Your task to perform on an android device: Add "macbook pro" to the cart on target, then select checkout. Image 0: 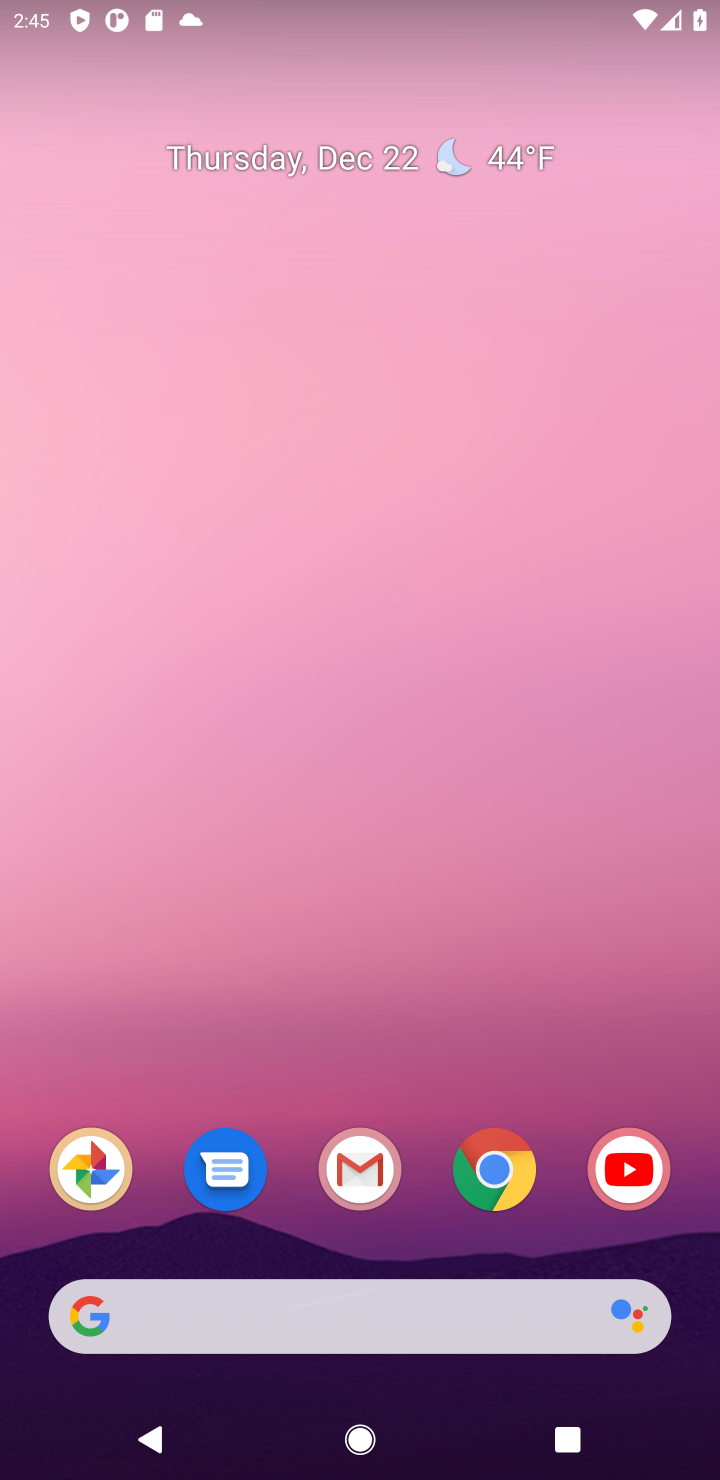
Step 0: click (487, 1172)
Your task to perform on an android device: Add "macbook pro" to the cart on target, then select checkout. Image 1: 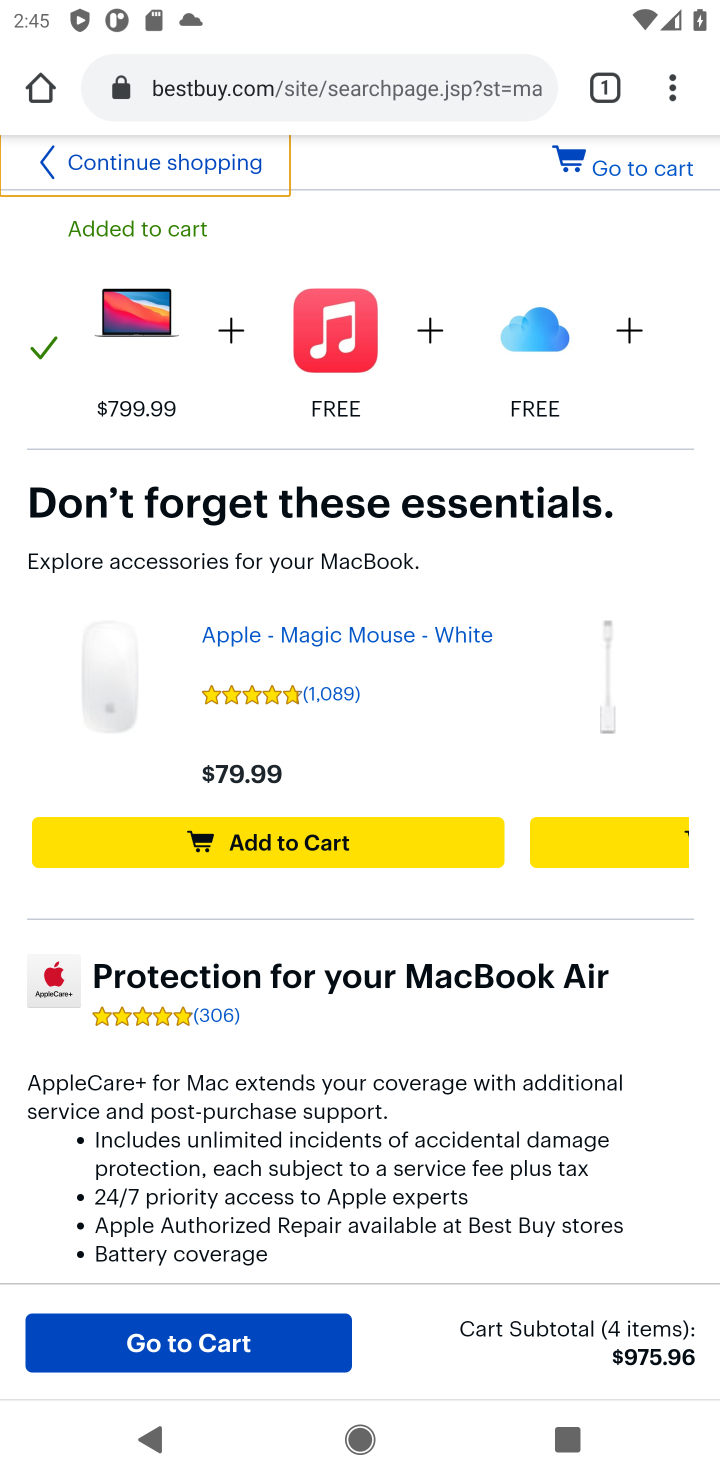
Step 1: click (258, 81)
Your task to perform on an android device: Add "macbook pro" to the cart on target, then select checkout. Image 2: 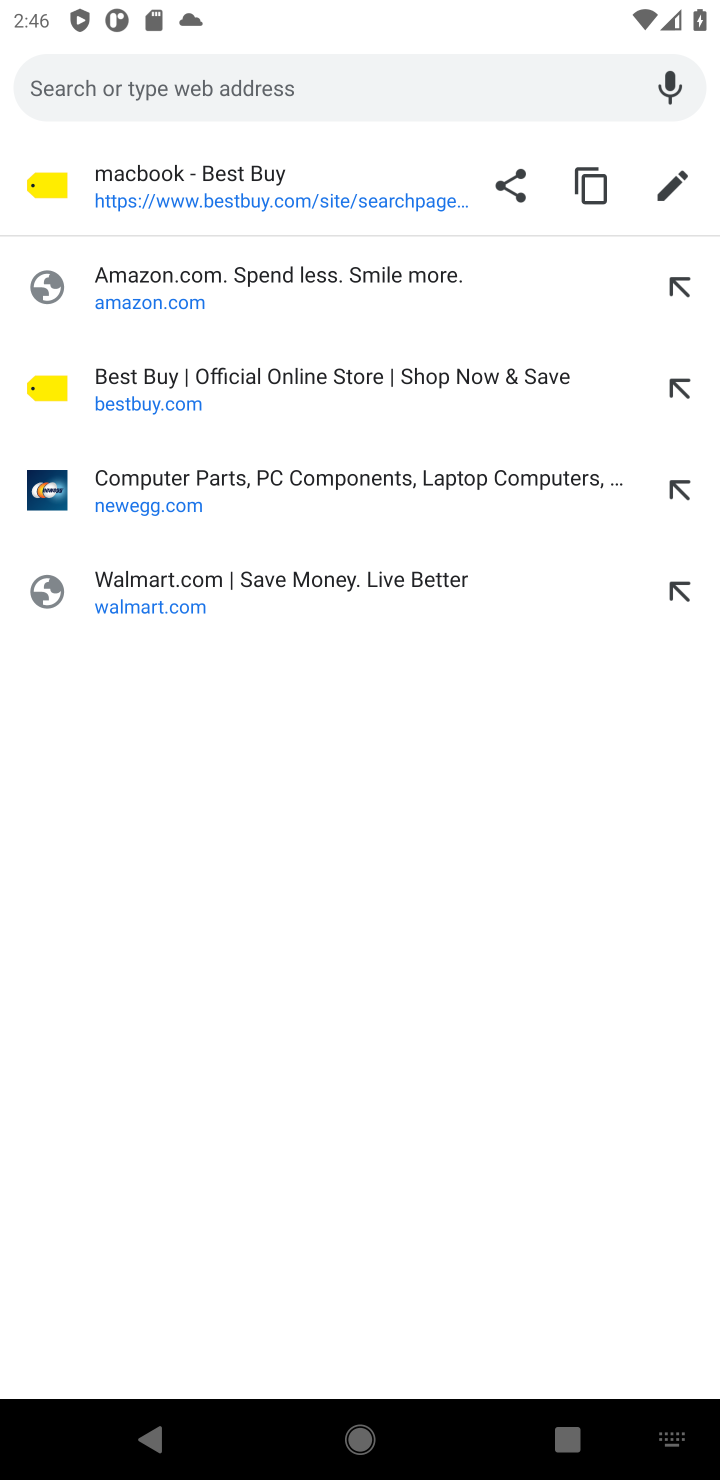
Step 2: type "target.com"
Your task to perform on an android device: Add "macbook pro" to the cart on target, then select checkout. Image 3: 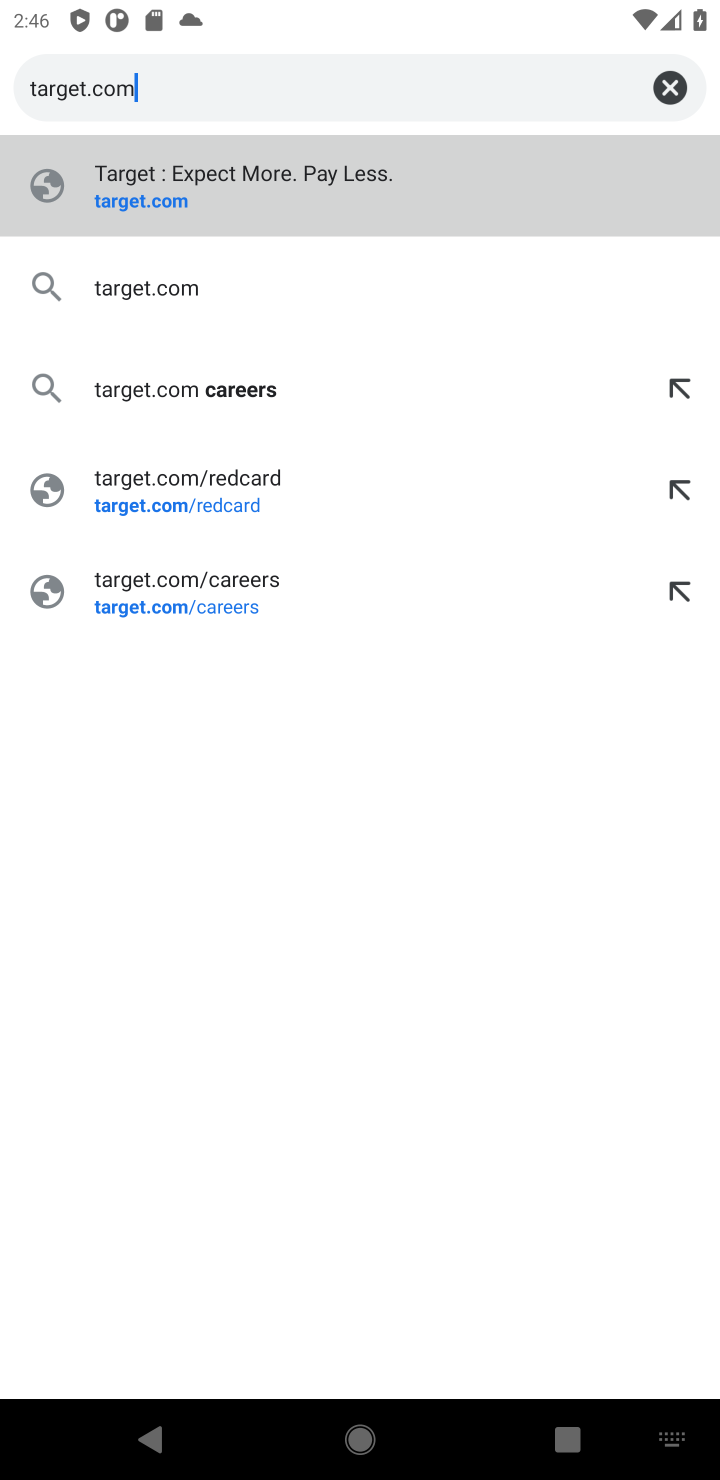
Step 3: click (137, 210)
Your task to perform on an android device: Add "macbook pro" to the cart on target, then select checkout. Image 4: 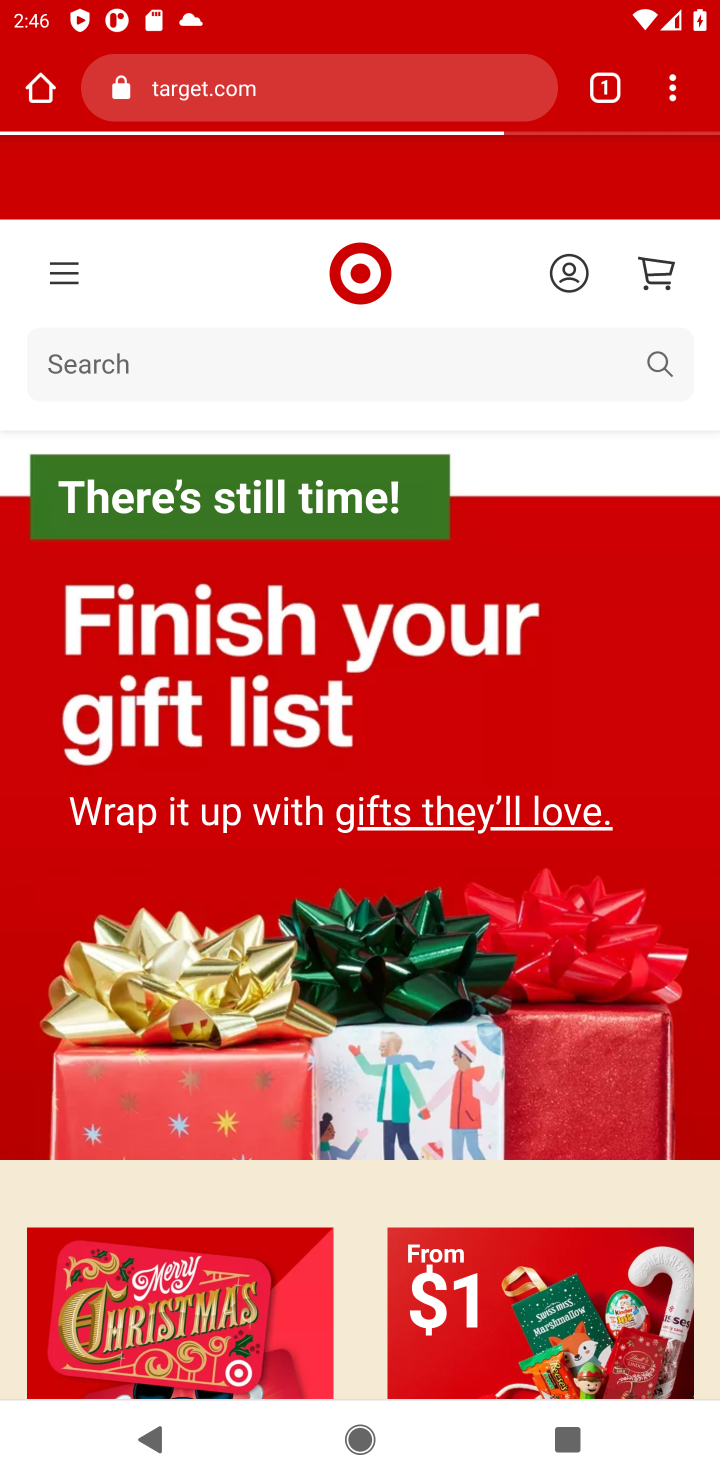
Step 4: click (69, 369)
Your task to perform on an android device: Add "macbook pro" to the cart on target, then select checkout. Image 5: 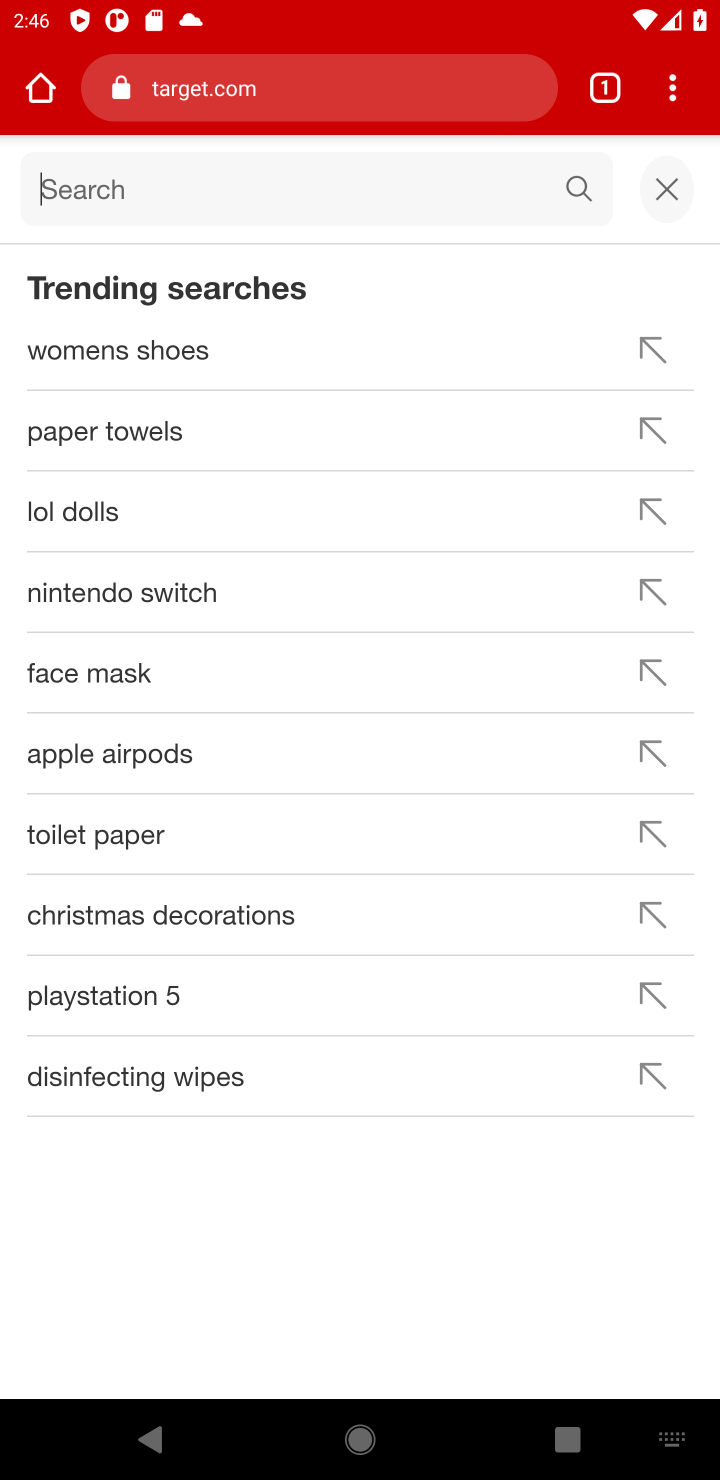
Step 5: type "macbook pro"
Your task to perform on an android device: Add "macbook pro" to the cart on target, then select checkout. Image 6: 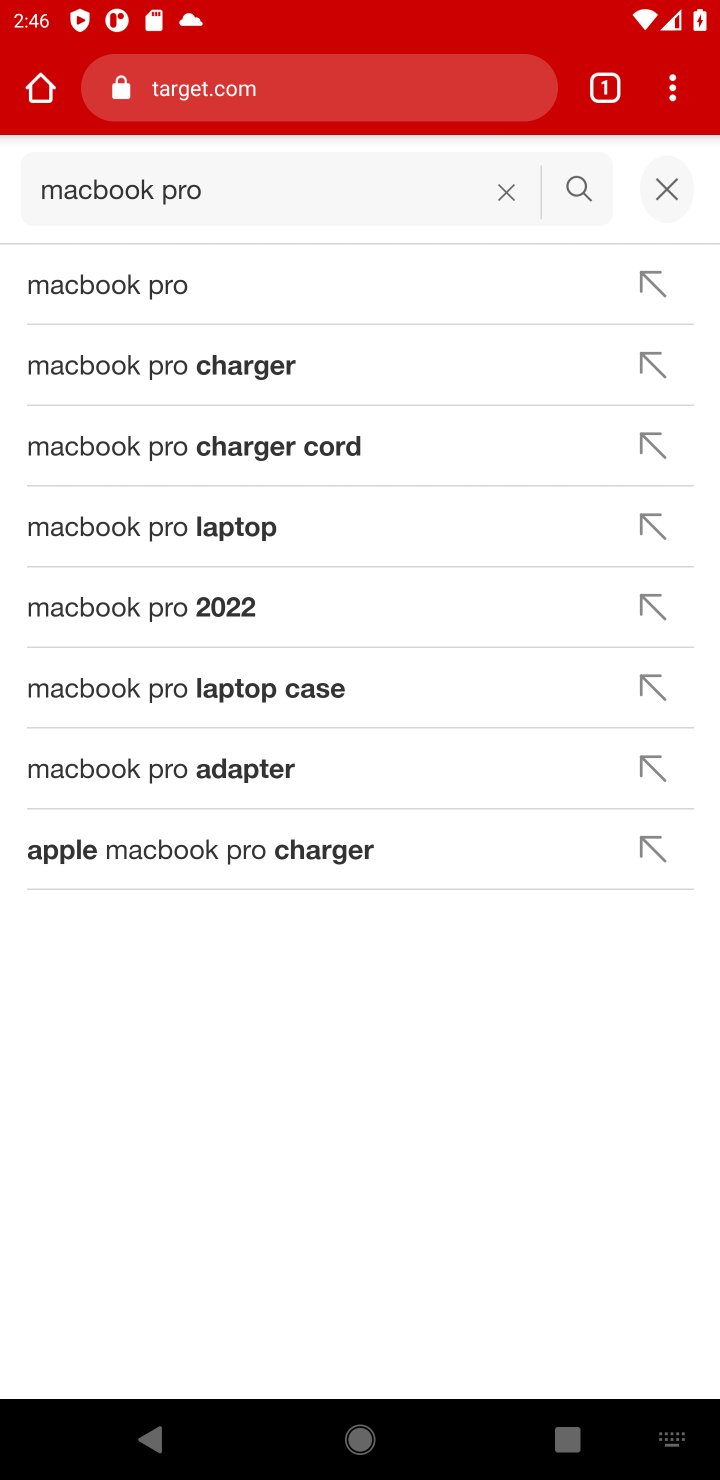
Step 6: click (80, 296)
Your task to perform on an android device: Add "macbook pro" to the cart on target, then select checkout. Image 7: 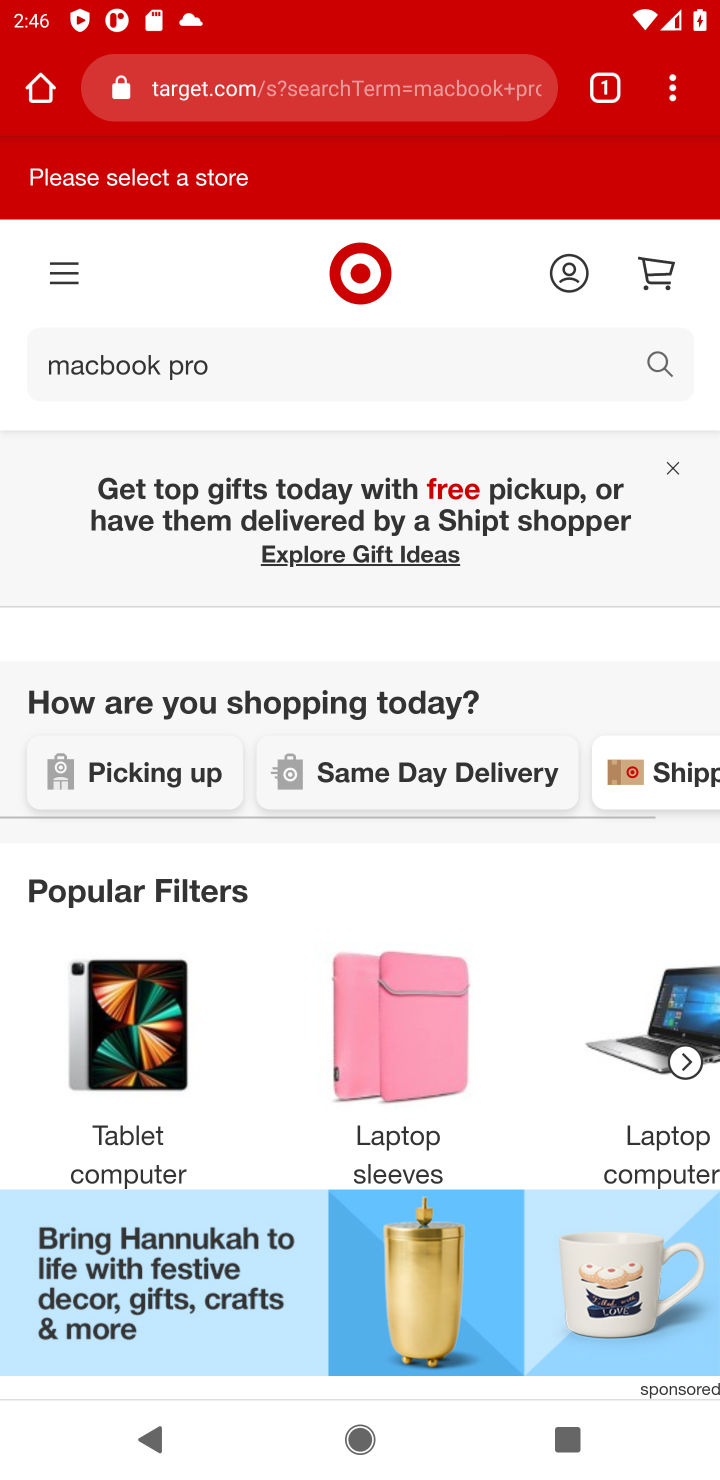
Step 7: drag from (286, 714) to (298, 362)
Your task to perform on an android device: Add "macbook pro" to the cart on target, then select checkout. Image 8: 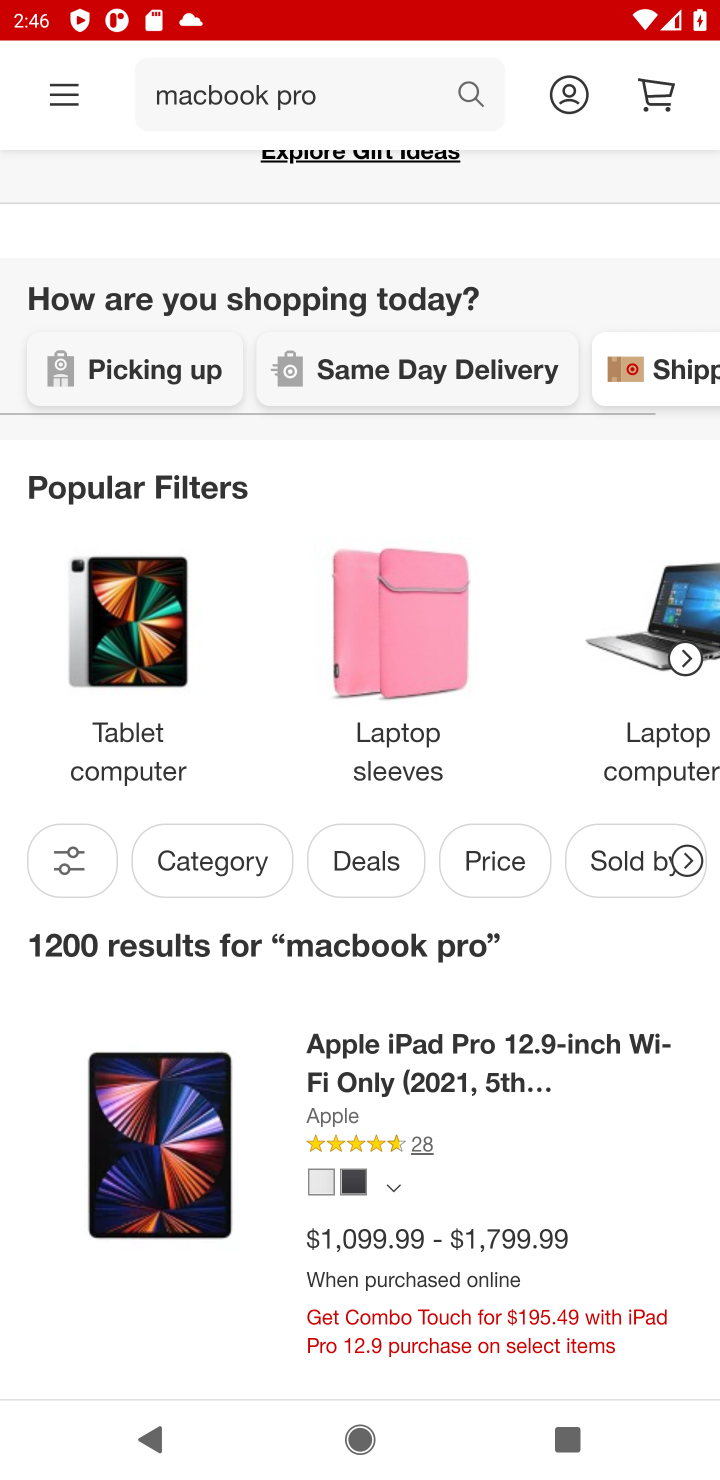
Step 8: drag from (300, 782) to (278, 274)
Your task to perform on an android device: Add "macbook pro" to the cart on target, then select checkout. Image 9: 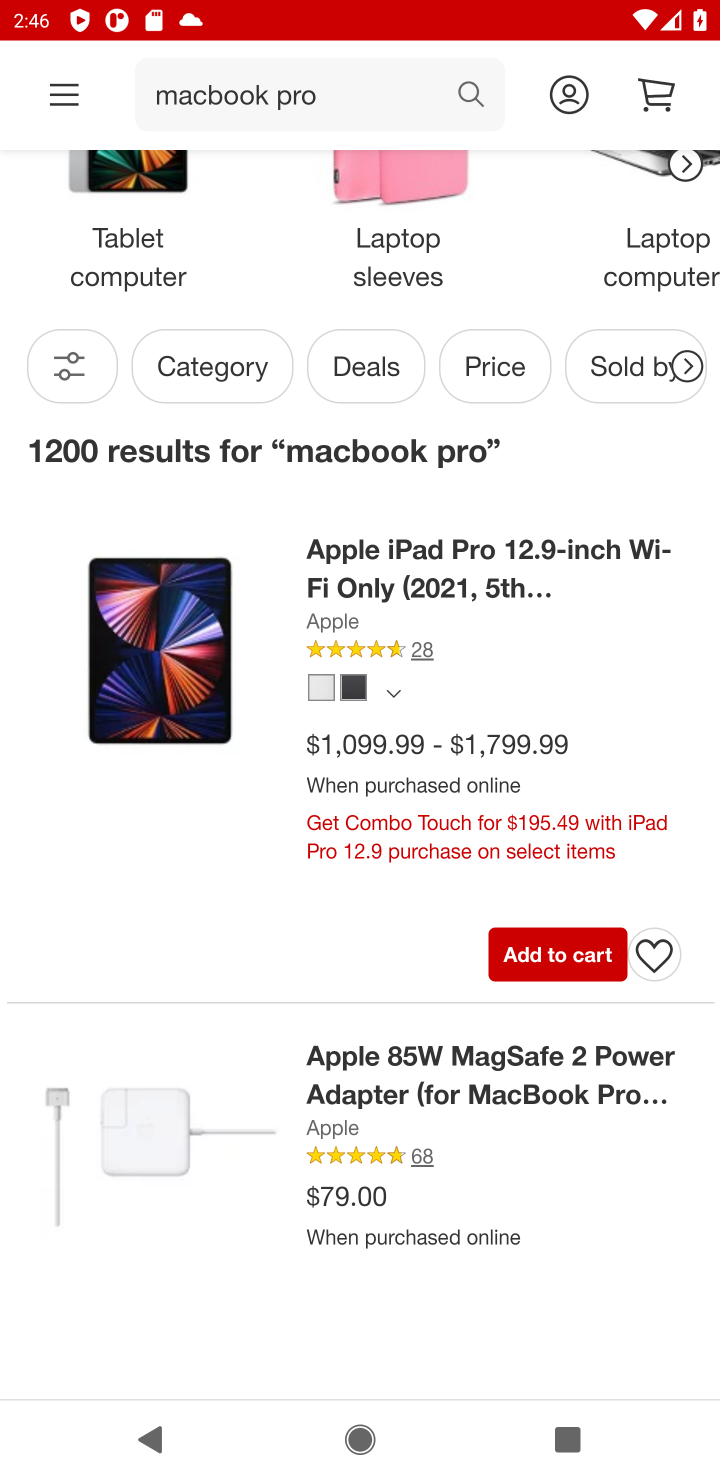
Step 9: drag from (402, 935) to (408, 415)
Your task to perform on an android device: Add "macbook pro" to the cart on target, then select checkout. Image 10: 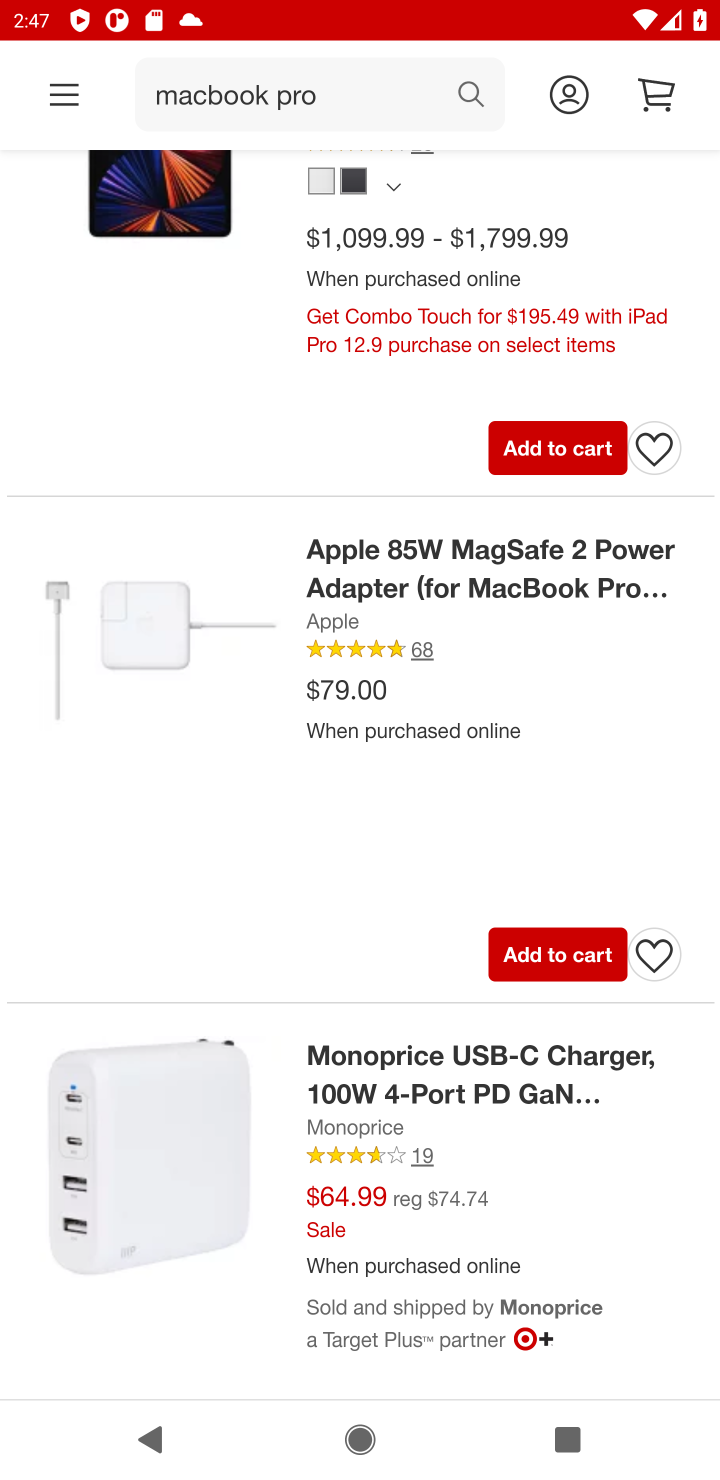
Step 10: click (433, 639)
Your task to perform on an android device: Add "macbook pro" to the cart on target, then select checkout. Image 11: 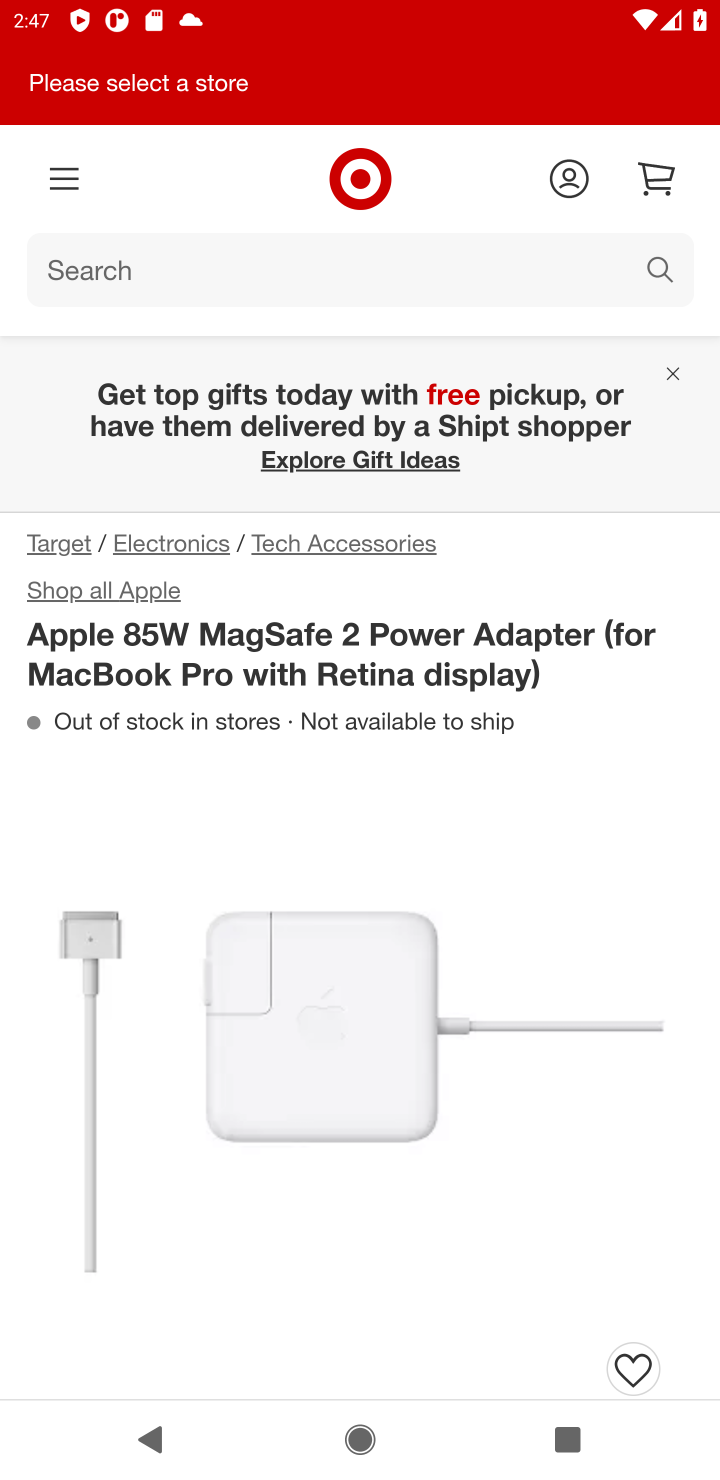
Step 11: drag from (368, 960) to (395, 372)
Your task to perform on an android device: Add "macbook pro" to the cart on target, then select checkout. Image 12: 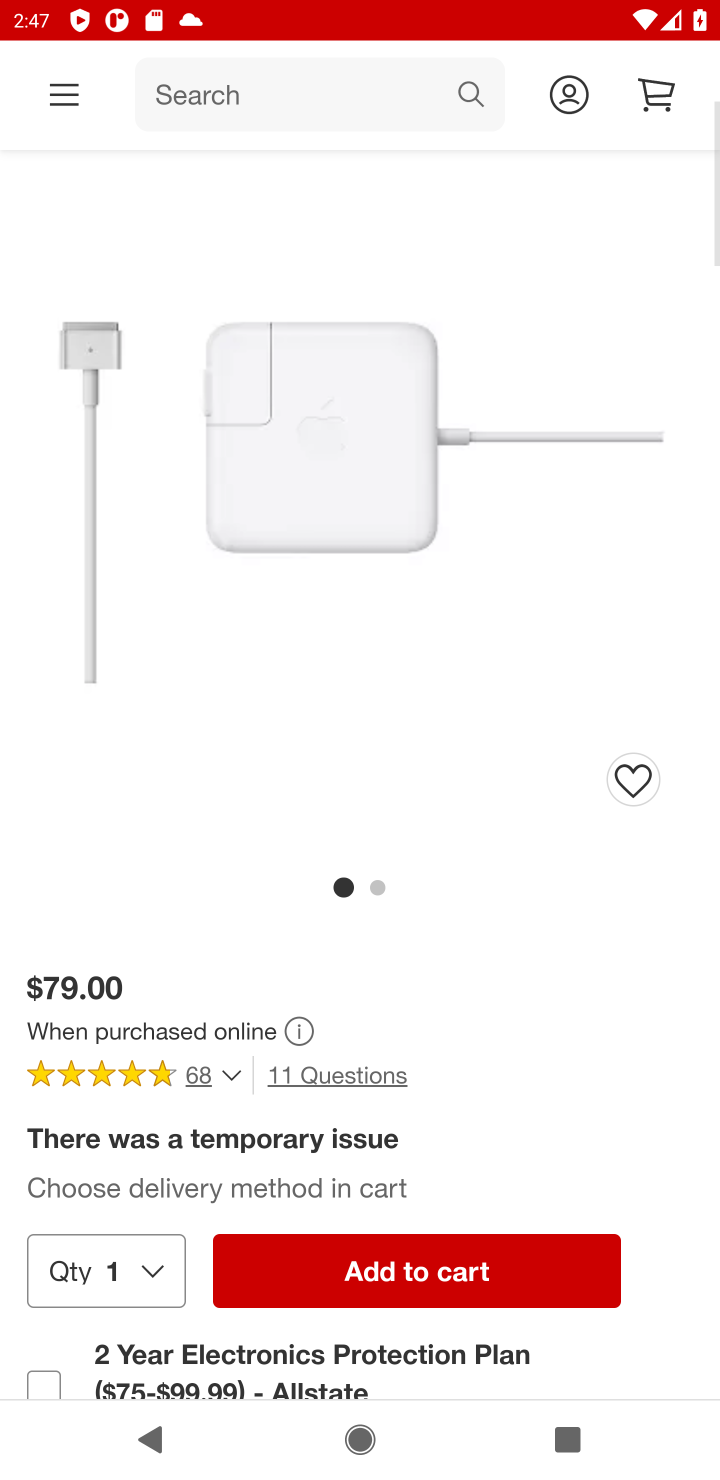
Step 12: drag from (363, 1085) to (383, 507)
Your task to perform on an android device: Add "macbook pro" to the cart on target, then select checkout. Image 13: 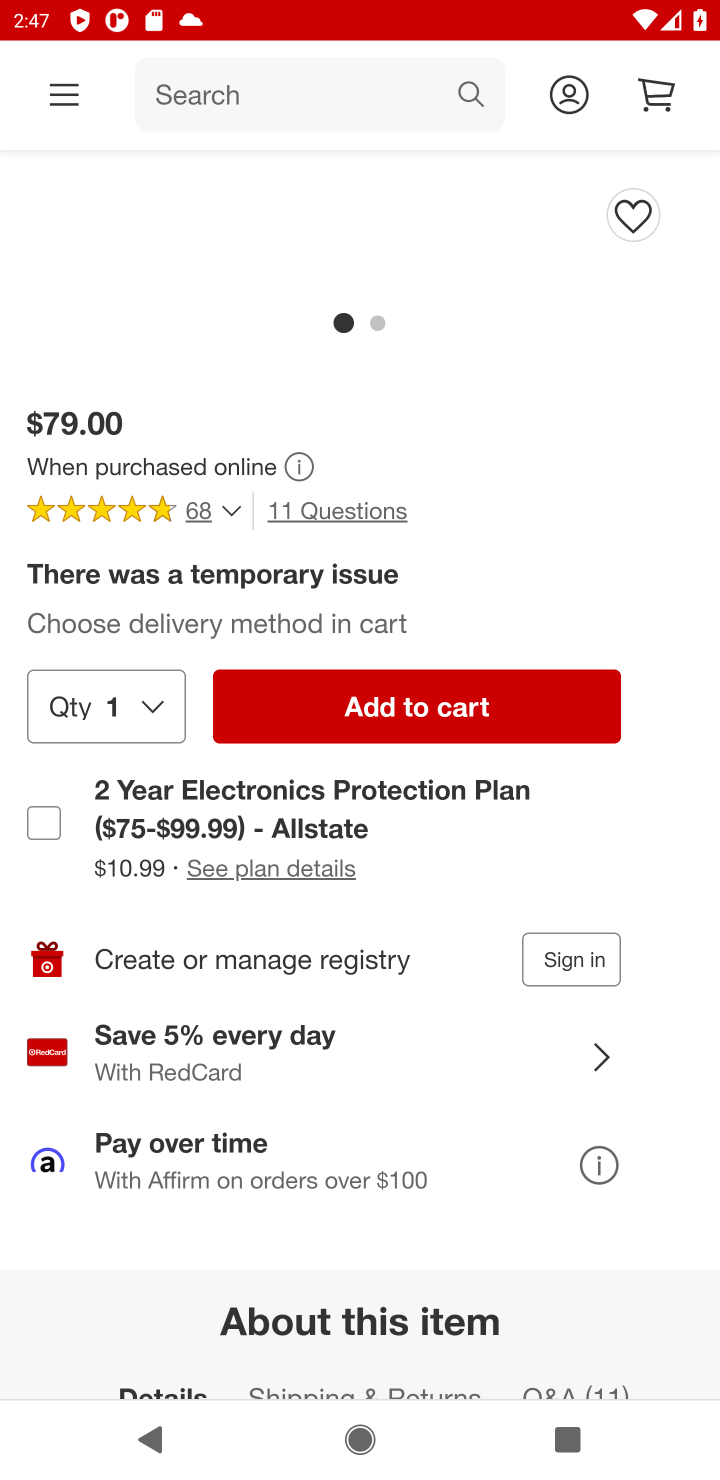
Step 13: click (395, 708)
Your task to perform on an android device: Add "macbook pro" to the cart on target, then select checkout. Image 14: 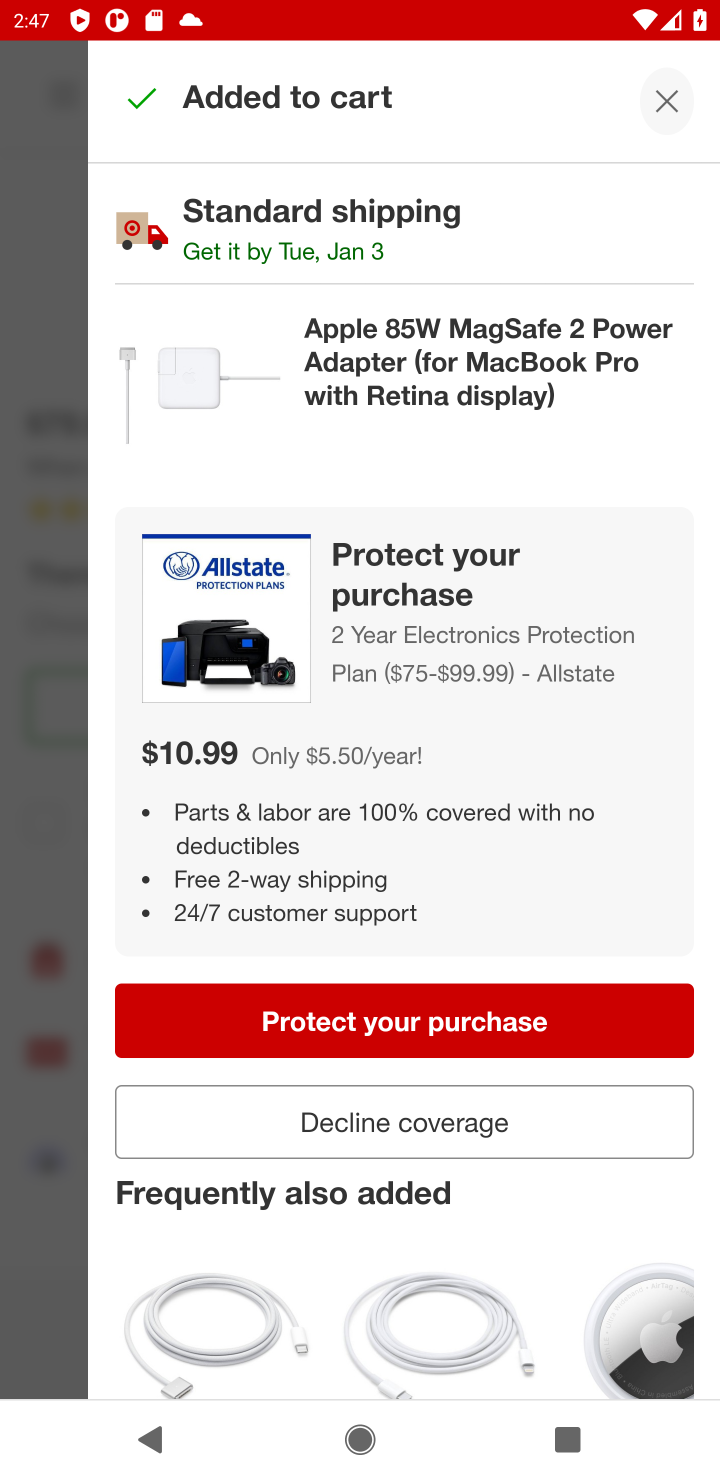
Step 14: click (683, 105)
Your task to perform on an android device: Add "macbook pro" to the cart on target, then select checkout. Image 15: 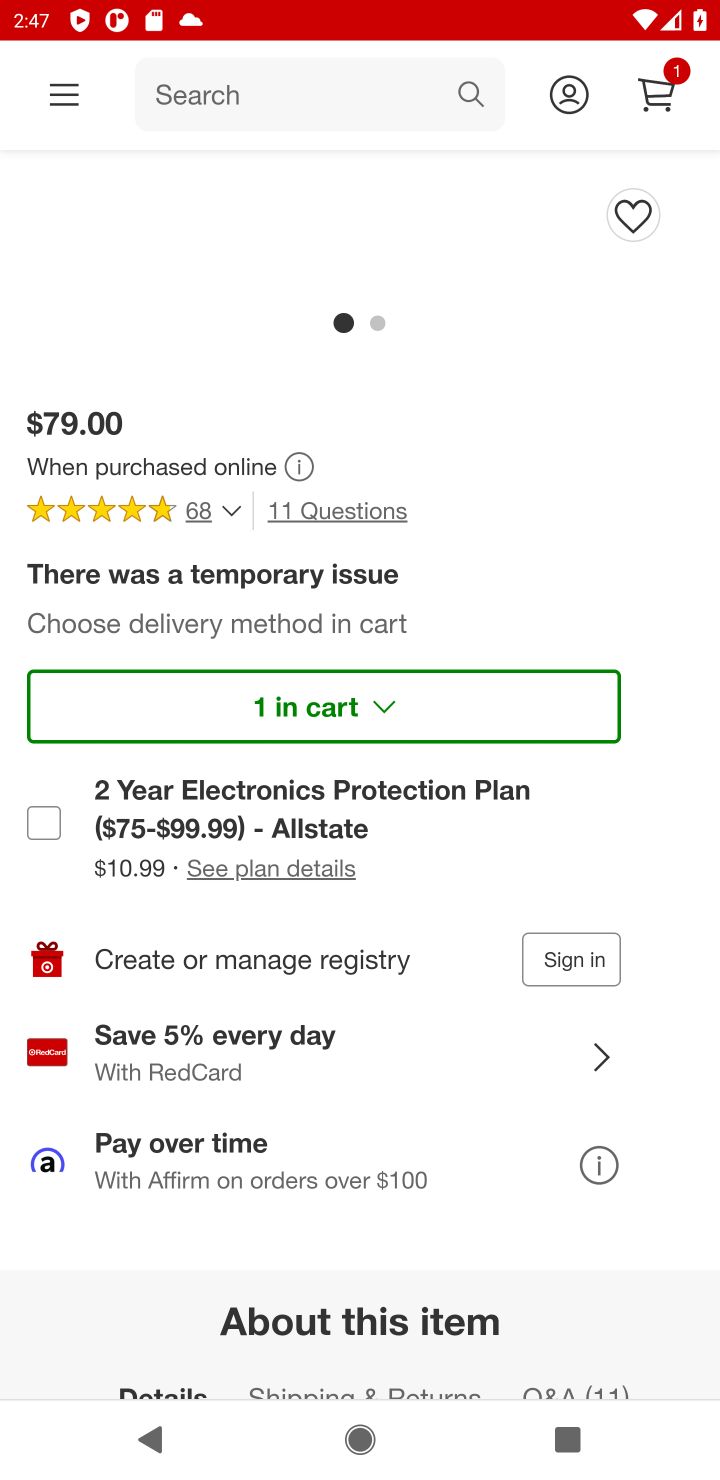
Step 15: click (666, 77)
Your task to perform on an android device: Add "macbook pro" to the cart on target, then select checkout. Image 16: 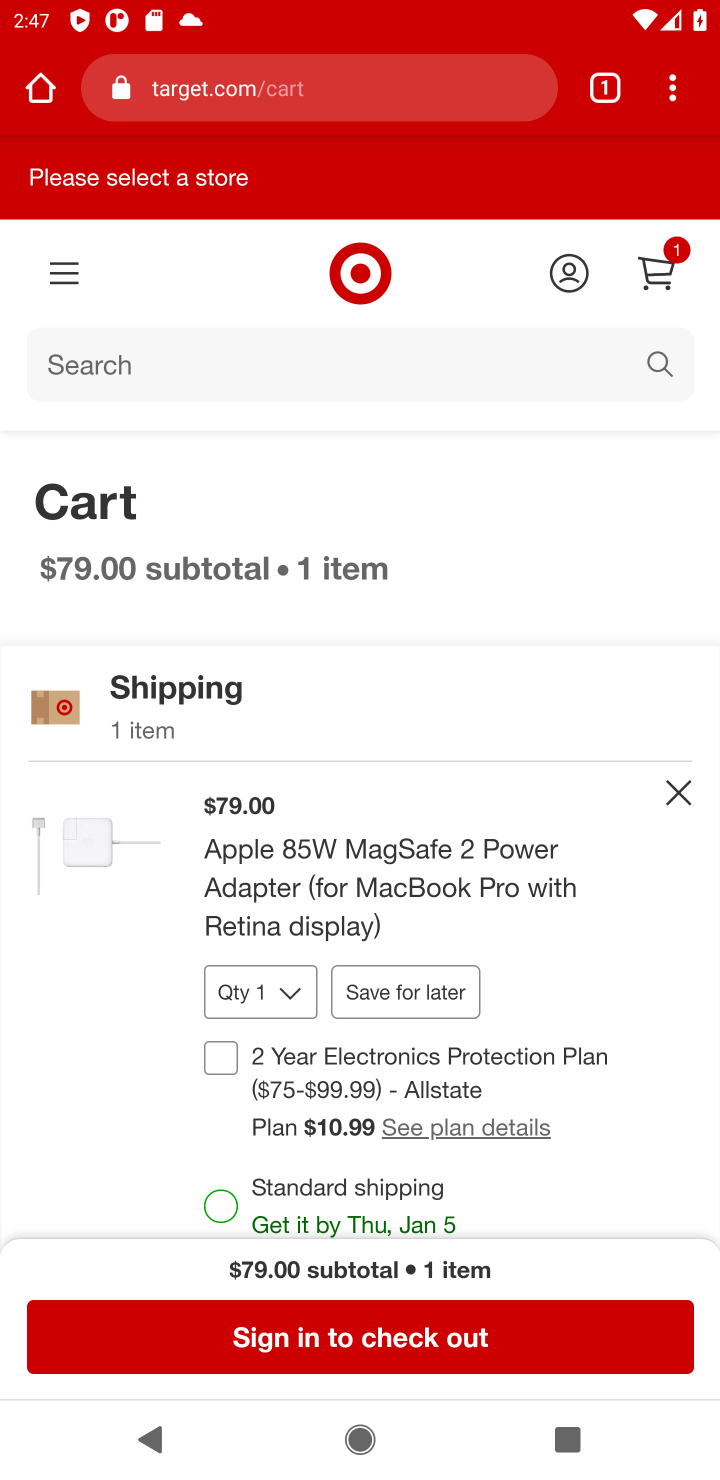
Step 16: click (384, 1334)
Your task to perform on an android device: Add "macbook pro" to the cart on target, then select checkout. Image 17: 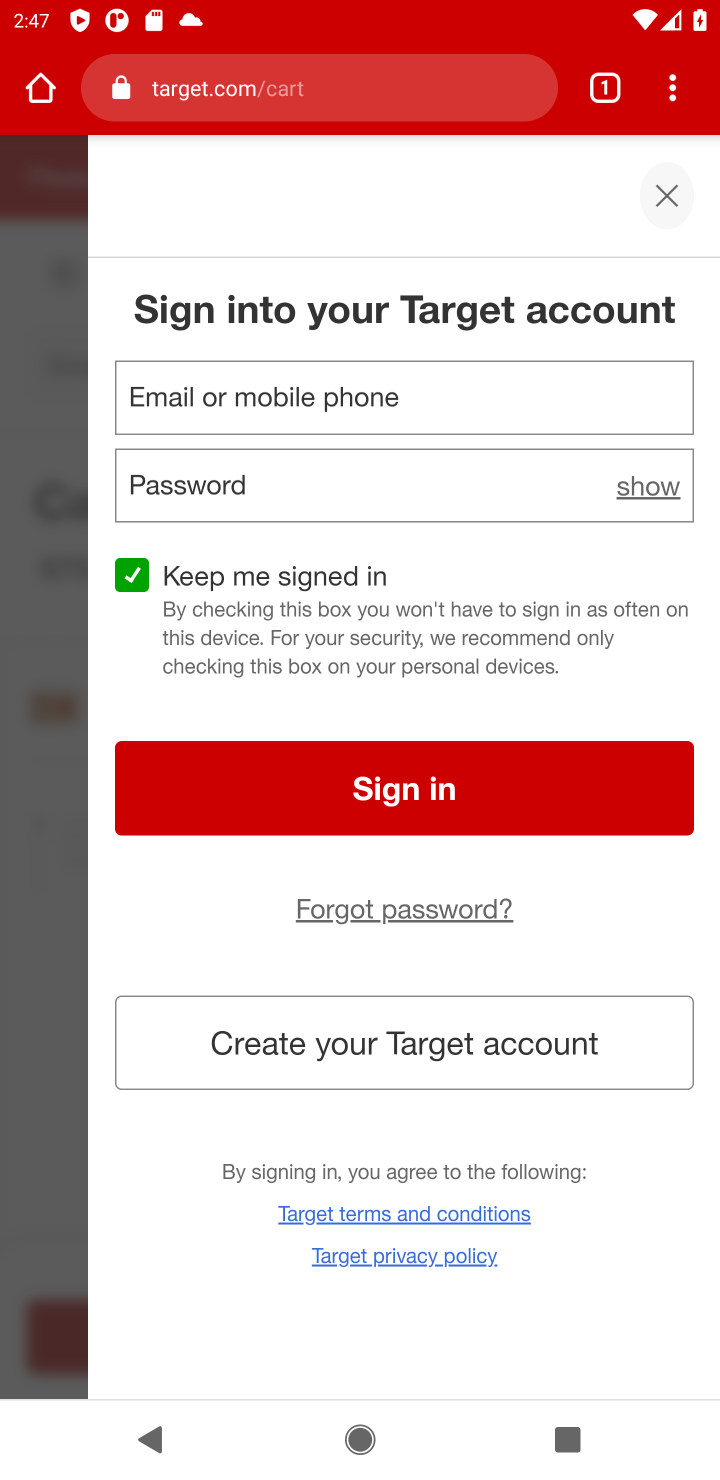
Step 17: task complete